Your task to perform on an android device: turn off location Image 0: 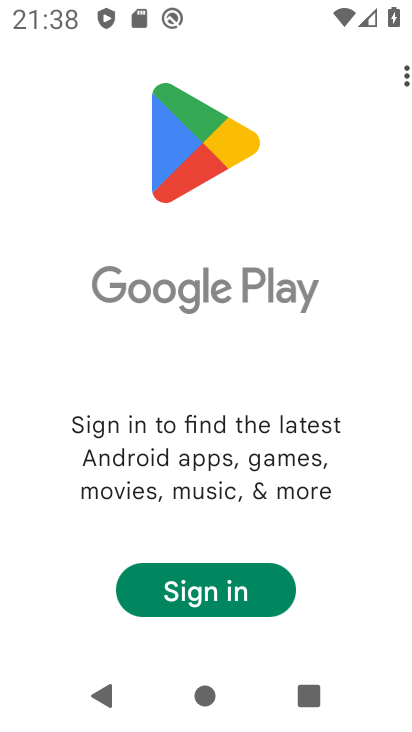
Step 0: press home button
Your task to perform on an android device: turn off location Image 1: 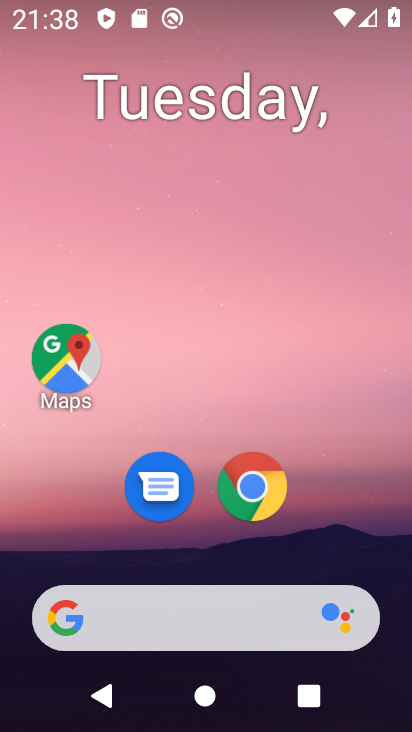
Step 1: drag from (357, 535) to (360, 155)
Your task to perform on an android device: turn off location Image 2: 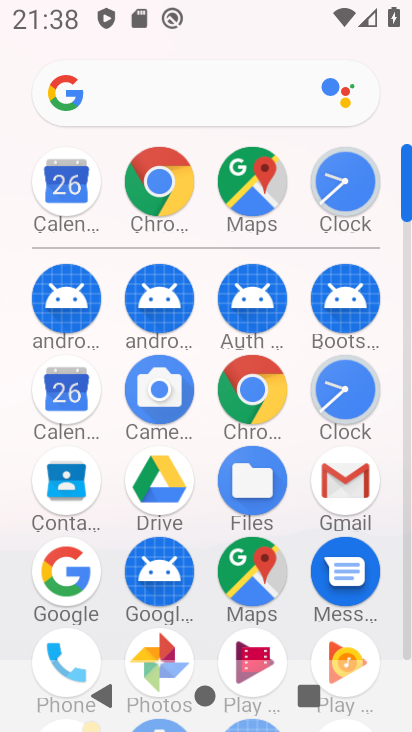
Step 2: drag from (396, 365) to (394, 191)
Your task to perform on an android device: turn off location Image 3: 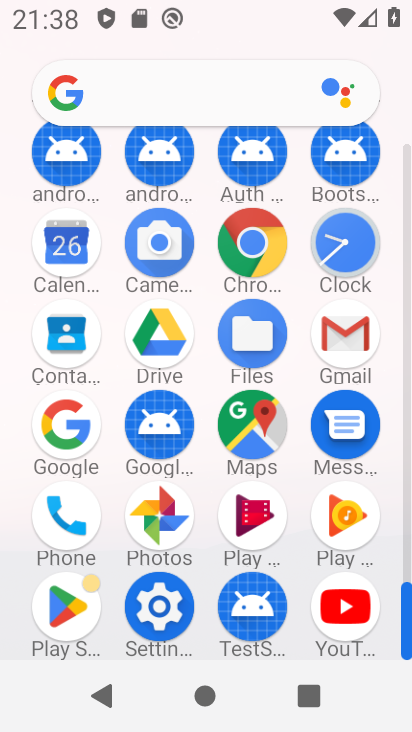
Step 3: click (163, 604)
Your task to perform on an android device: turn off location Image 4: 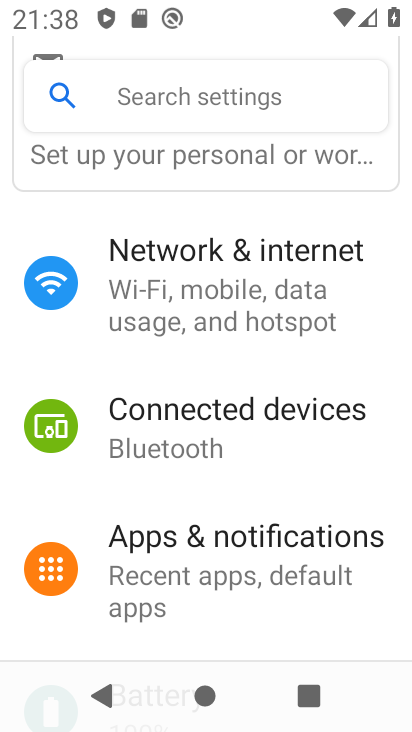
Step 4: drag from (262, 609) to (272, 536)
Your task to perform on an android device: turn off location Image 5: 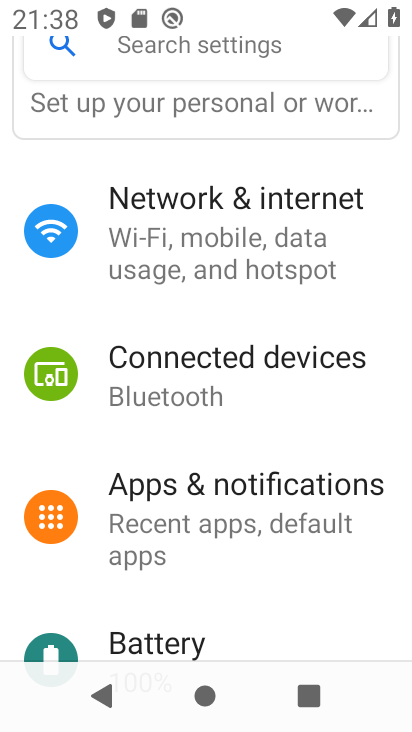
Step 5: drag from (272, 633) to (295, 503)
Your task to perform on an android device: turn off location Image 6: 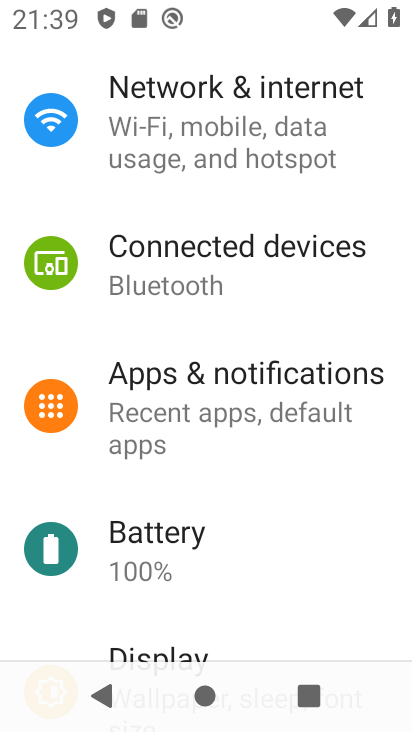
Step 6: drag from (296, 600) to (318, 456)
Your task to perform on an android device: turn off location Image 7: 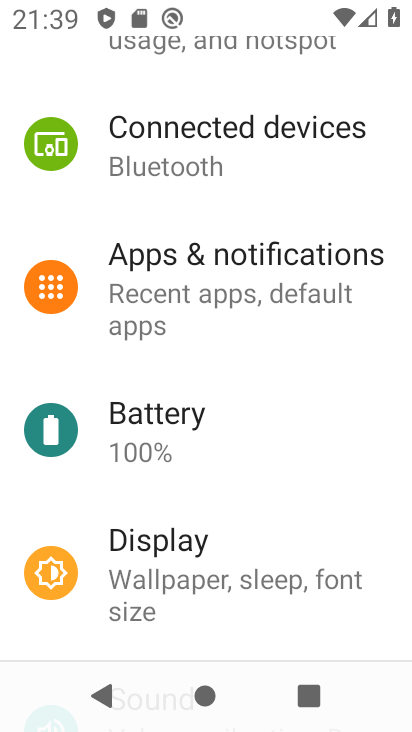
Step 7: drag from (296, 618) to (298, 514)
Your task to perform on an android device: turn off location Image 8: 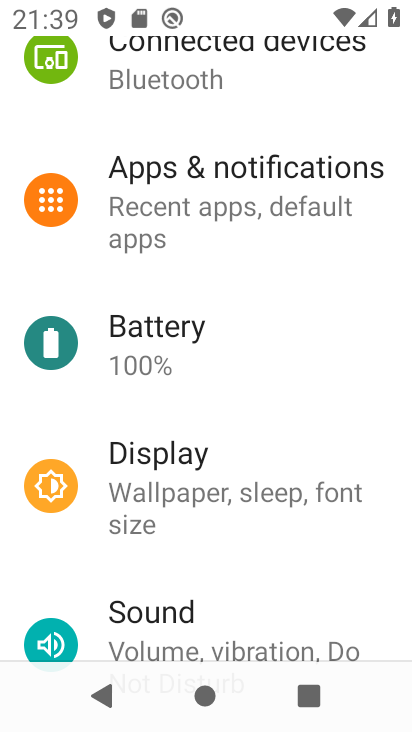
Step 8: drag from (286, 596) to (288, 469)
Your task to perform on an android device: turn off location Image 9: 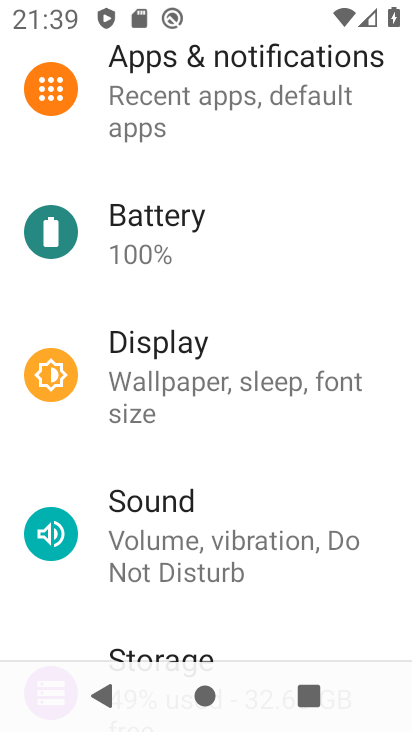
Step 9: drag from (285, 604) to (280, 474)
Your task to perform on an android device: turn off location Image 10: 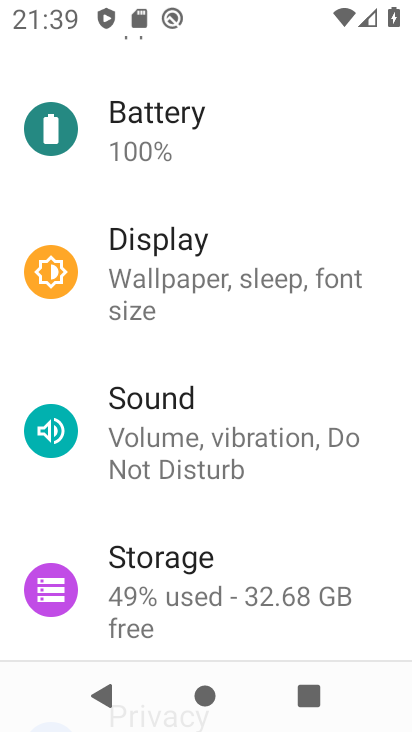
Step 10: drag from (323, 625) to (318, 486)
Your task to perform on an android device: turn off location Image 11: 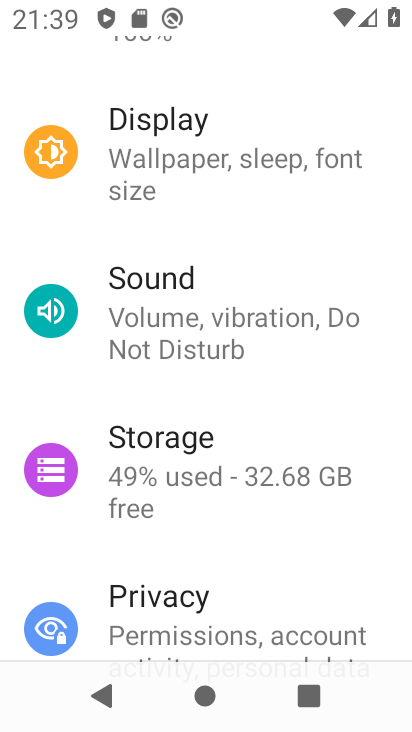
Step 11: drag from (323, 607) to (322, 485)
Your task to perform on an android device: turn off location Image 12: 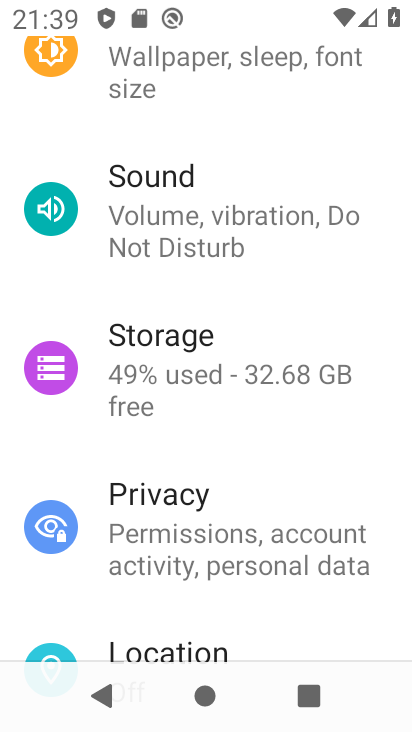
Step 12: drag from (320, 618) to (323, 469)
Your task to perform on an android device: turn off location Image 13: 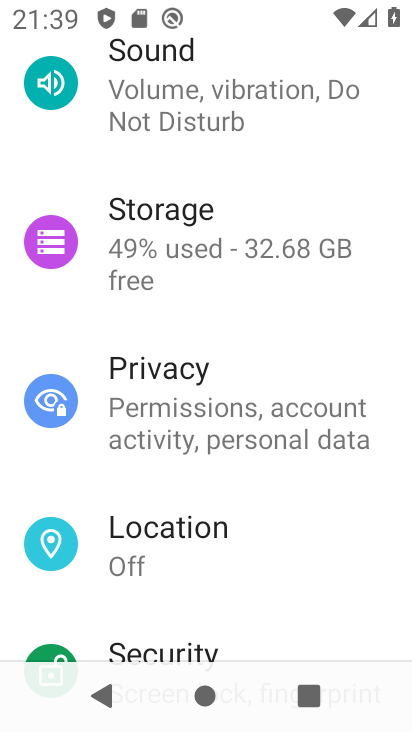
Step 13: click (285, 554)
Your task to perform on an android device: turn off location Image 14: 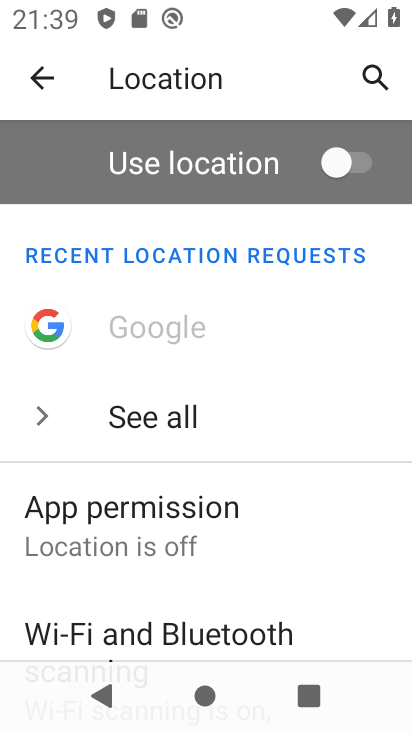
Step 14: task complete